Your task to perform on an android device: Search for Italian restaurants on Maps Image 0: 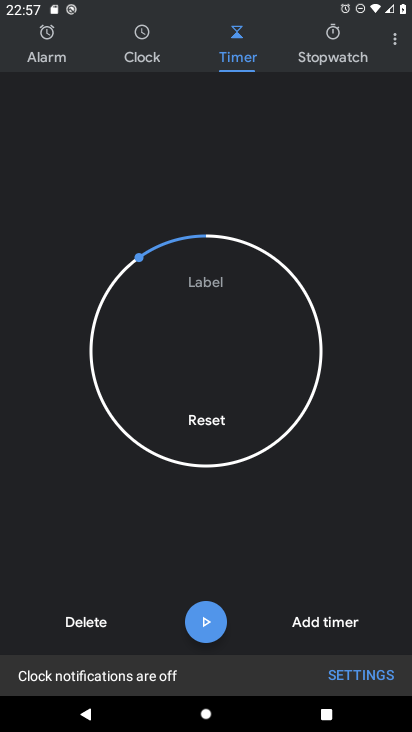
Step 0: press home button
Your task to perform on an android device: Search for Italian restaurants on Maps Image 1: 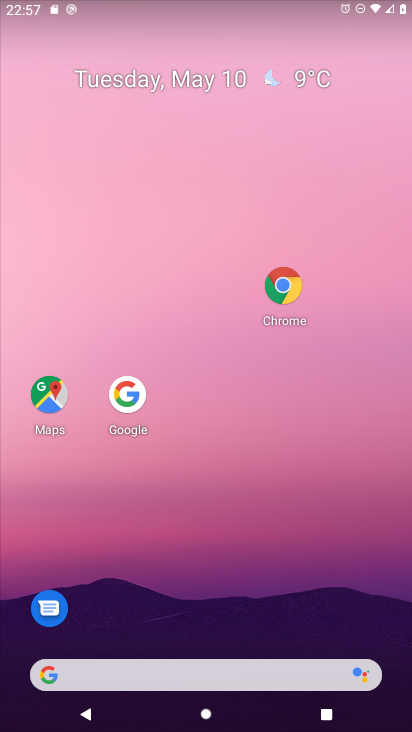
Step 1: drag from (149, 671) to (258, 300)
Your task to perform on an android device: Search for Italian restaurants on Maps Image 2: 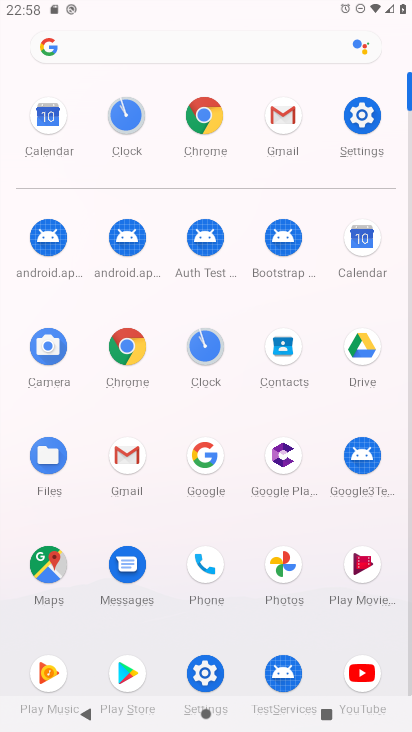
Step 2: click (48, 560)
Your task to perform on an android device: Search for Italian restaurants on Maps Image 3: 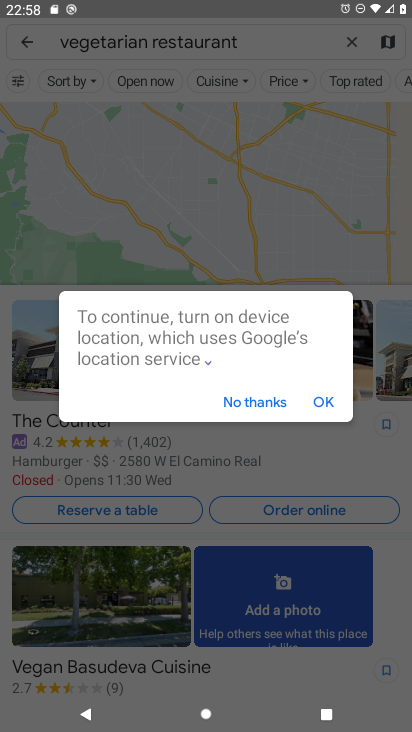
Step 3: click (350, 46)
Your task to perform on an android device: Search for Italian restaurants on Maps Image 4: 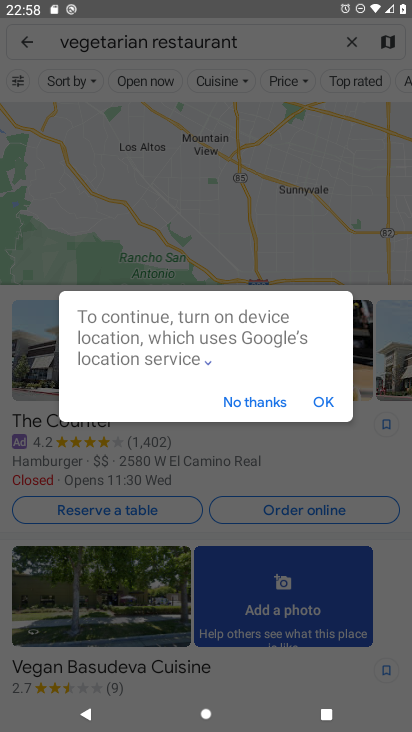
Step 4: click (322, 403)
Your task to perform on an android device: Search for Italian restaurants on Maps Image 5: 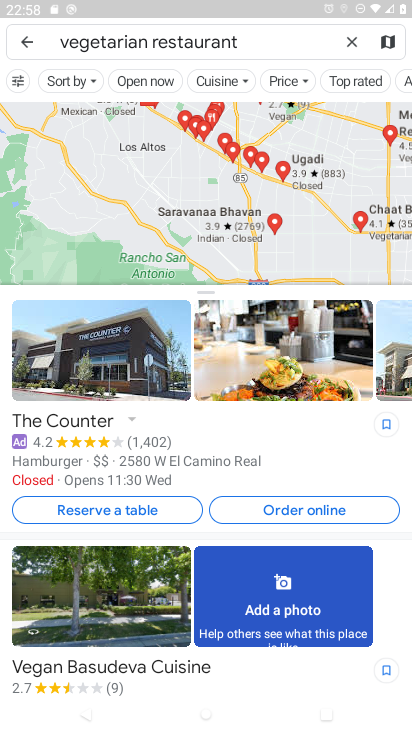
Step 5: click (350, 40)
Your task to perform on an android device: Search for Italian restaurants on Maps Image 6: 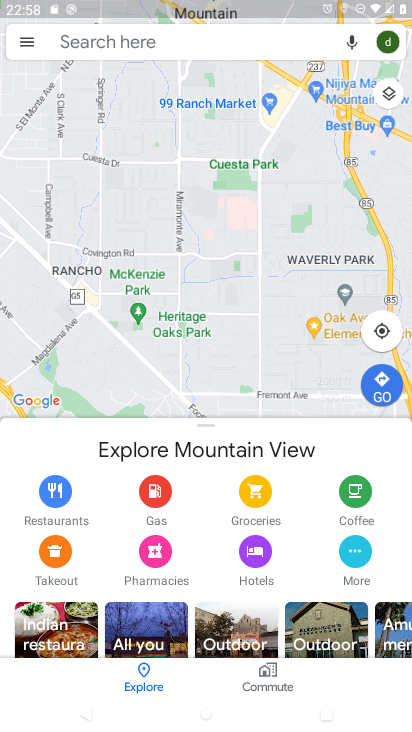
Step 6: click (157, 42)
Your task to perform on an android device: Search for Italian restaurants on Maps Image 7: 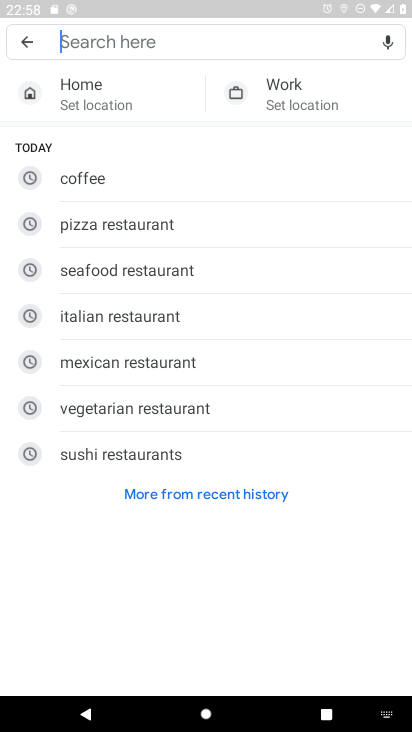
Step 7: click (133, 319)
Your task to perform on an android device: Search for Italian restaurants on Maps Image 8: 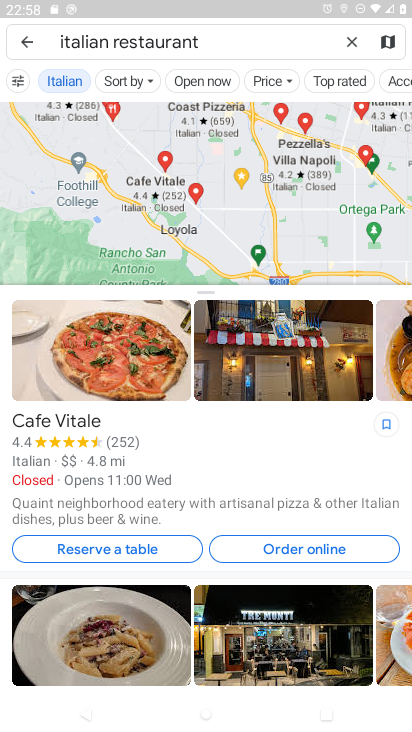
Step 8: task complete